Your task to perform on an android device: open app "HBO Max: Stream TV & Movies" (install if not already installed), go to login, and select forgot password Image 0: 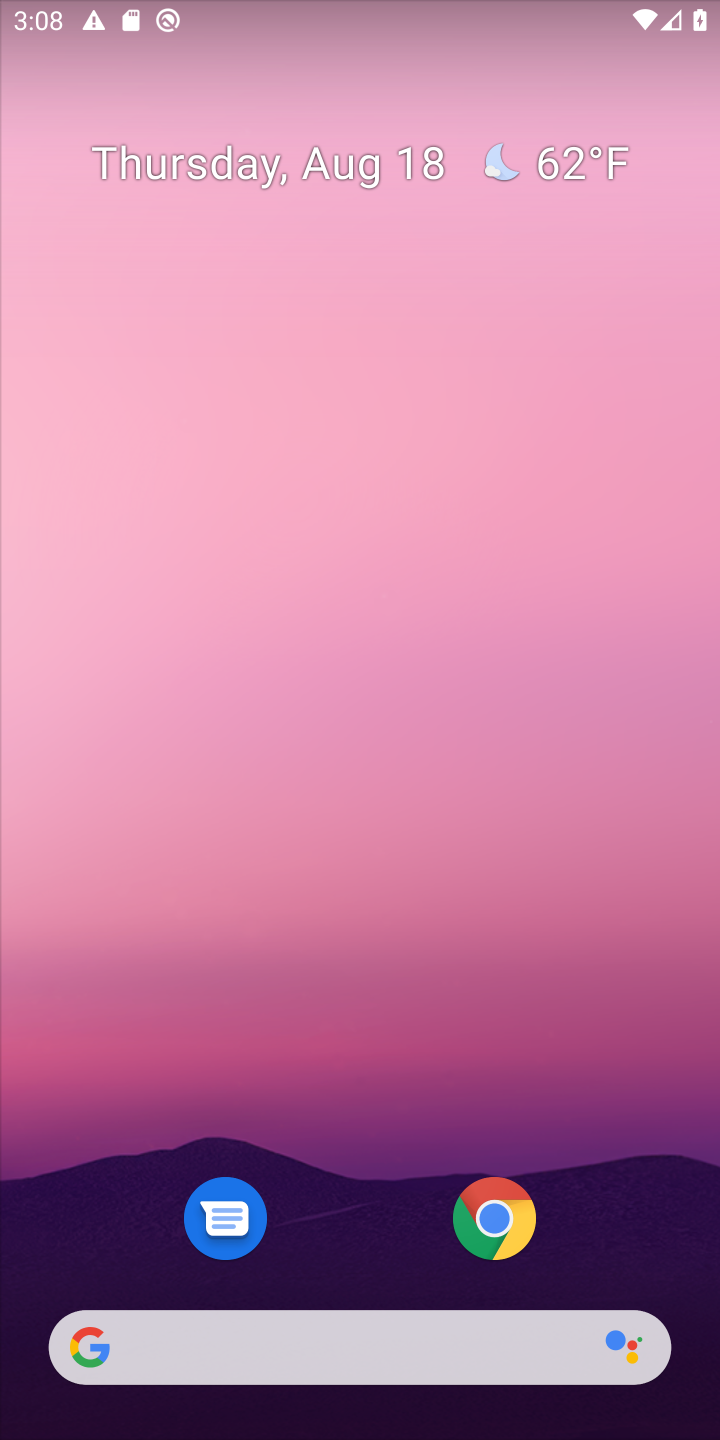
Step 0: drag from (376, 1160) to (376, 421)
Your task to perform on an android device: open app "HBO Max: Stream TV & Movies" (install if not already installed), go to login, and select forgot password Image 1: 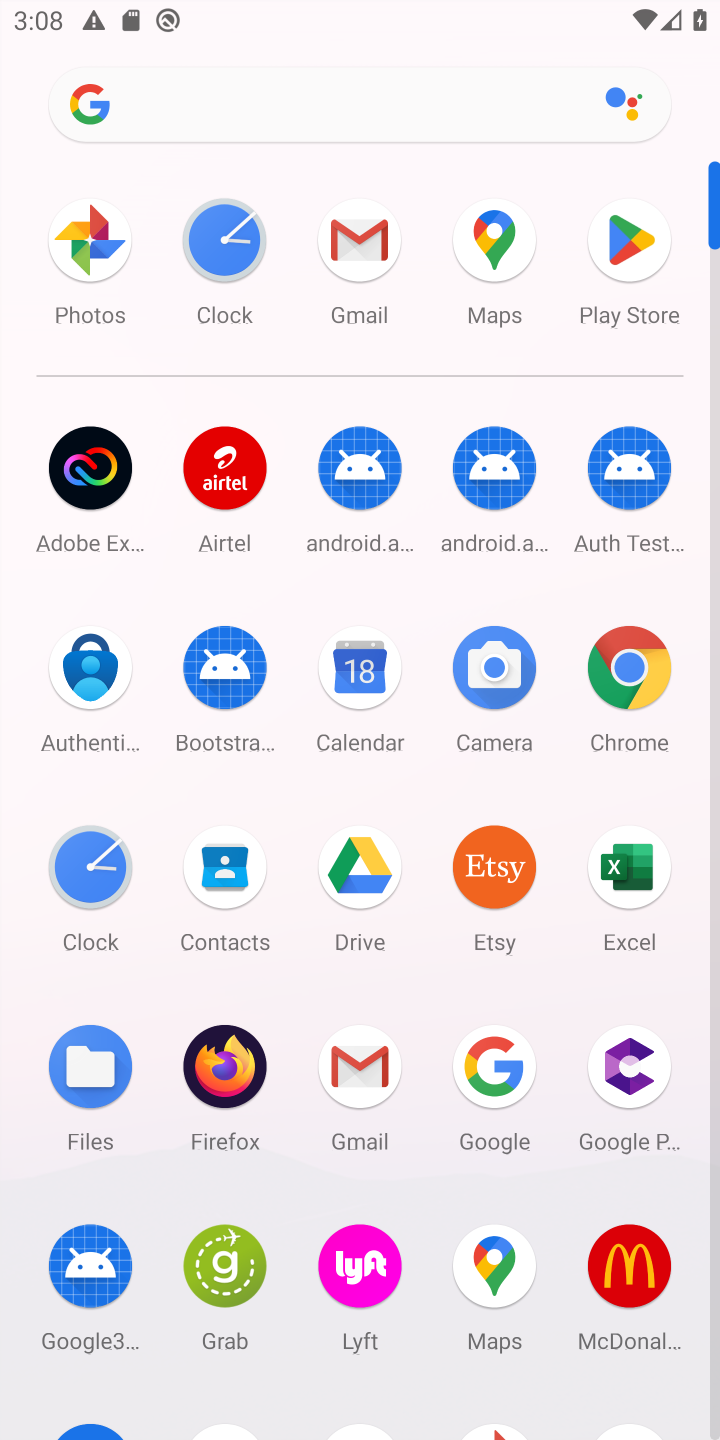
Step 1: click (632, 252)
Your task to perform on an android device: open app "HBO Max: Stream TV & Movies" (install if not already installed), go to login, and select forgot password Image 2: 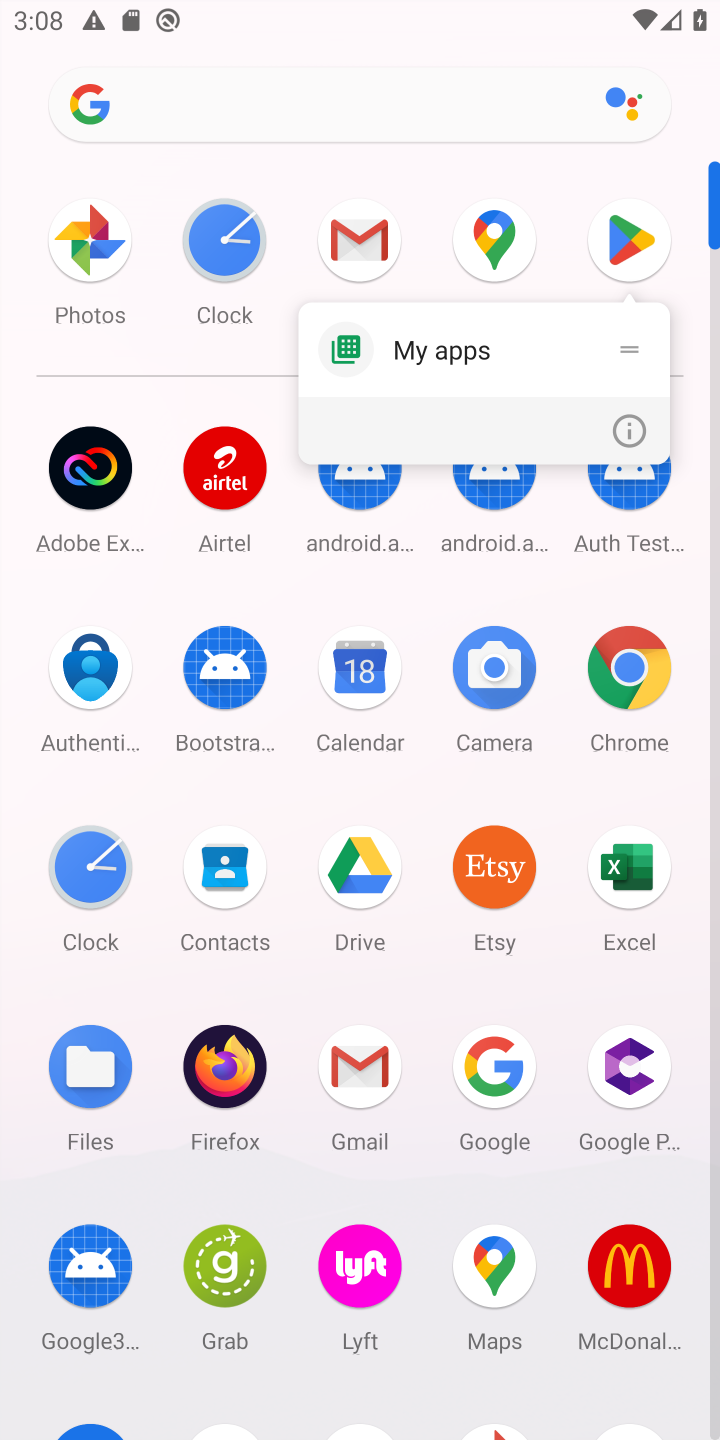
Step 2: click (624, 230)
Your task to perform on an android device: open app "HBO Max: Stream TV & Movies" (install if not already installed), go to login, and select forgot password Image 3: 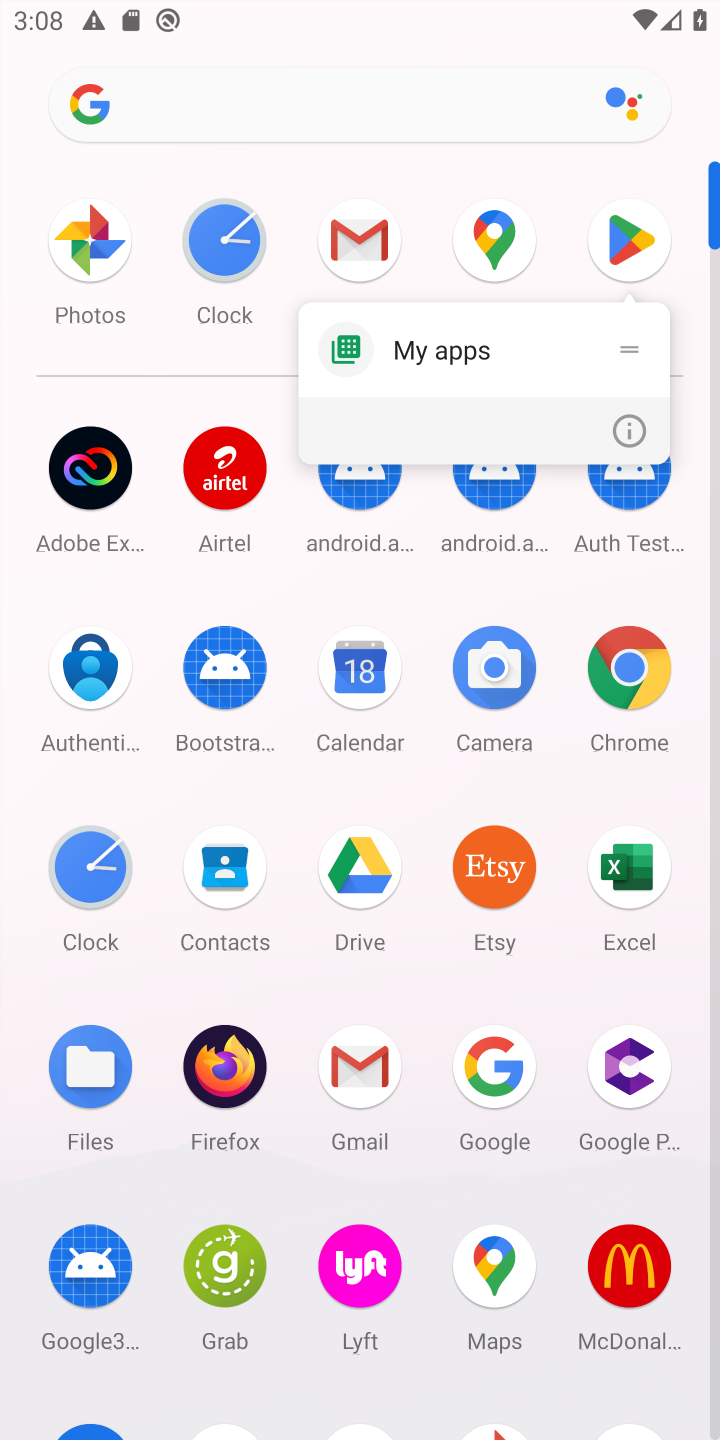
Step 3: click (624, 230)
Your task to perform on an android device: open app "HBO Max: Stream TV & Movies" (install if not already installed), go to login, and select forgot password Image 4: 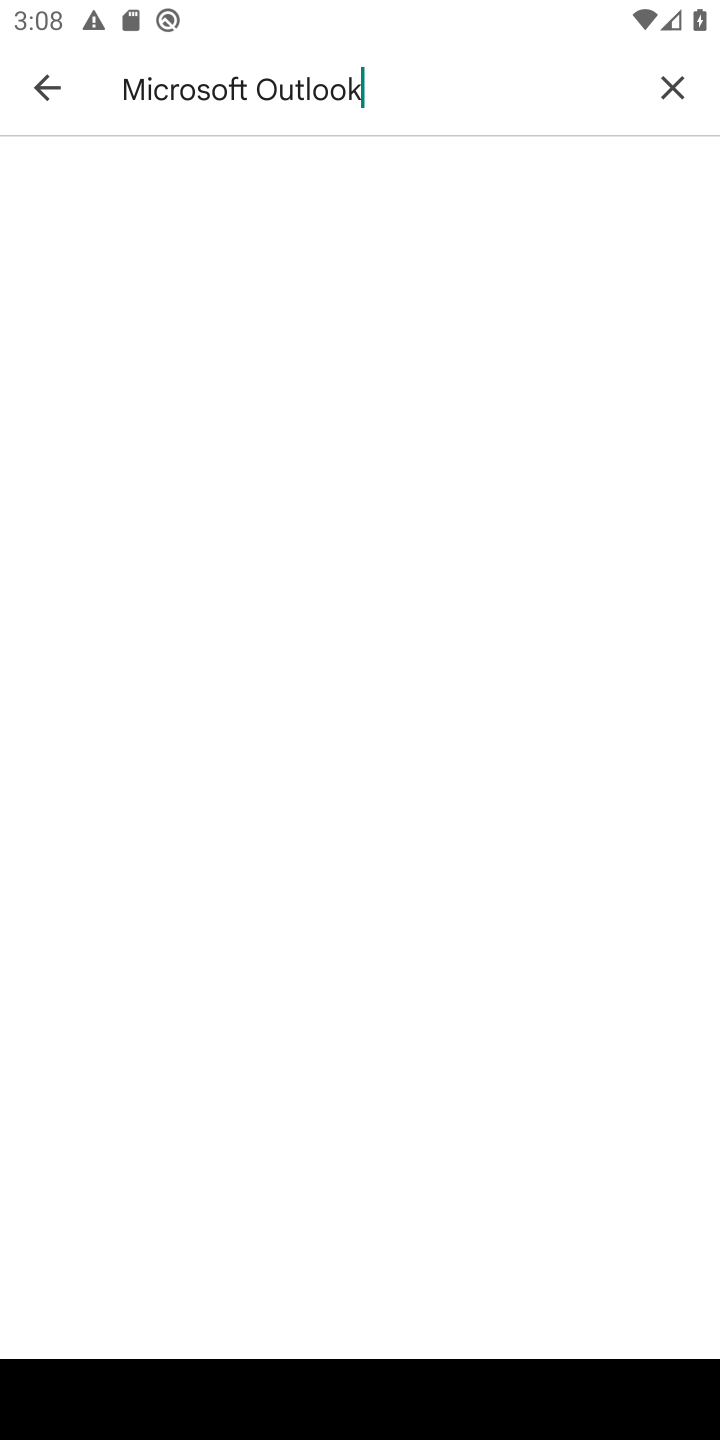
Step 4: click (664, 86)
Your task to perform on an android device: open app "HBO Max: Stream TV & Movies" (install if not already installed), go to login, and select forgot password Image 5: 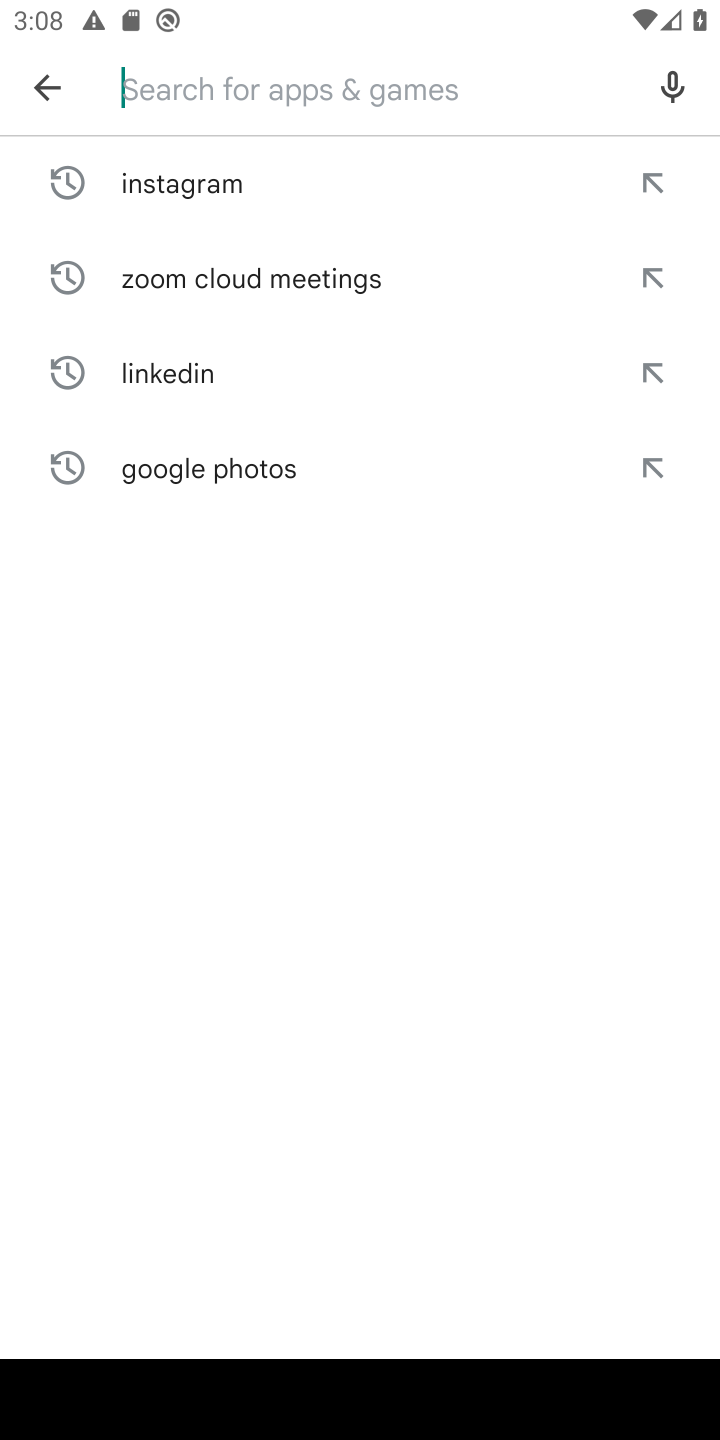
Step 5: click (277, 80)
Your task to perform on an android device: open app "HBO Max: Stream TV & Movies" (install if not already installed), go to login, and select forgot password Image 6: 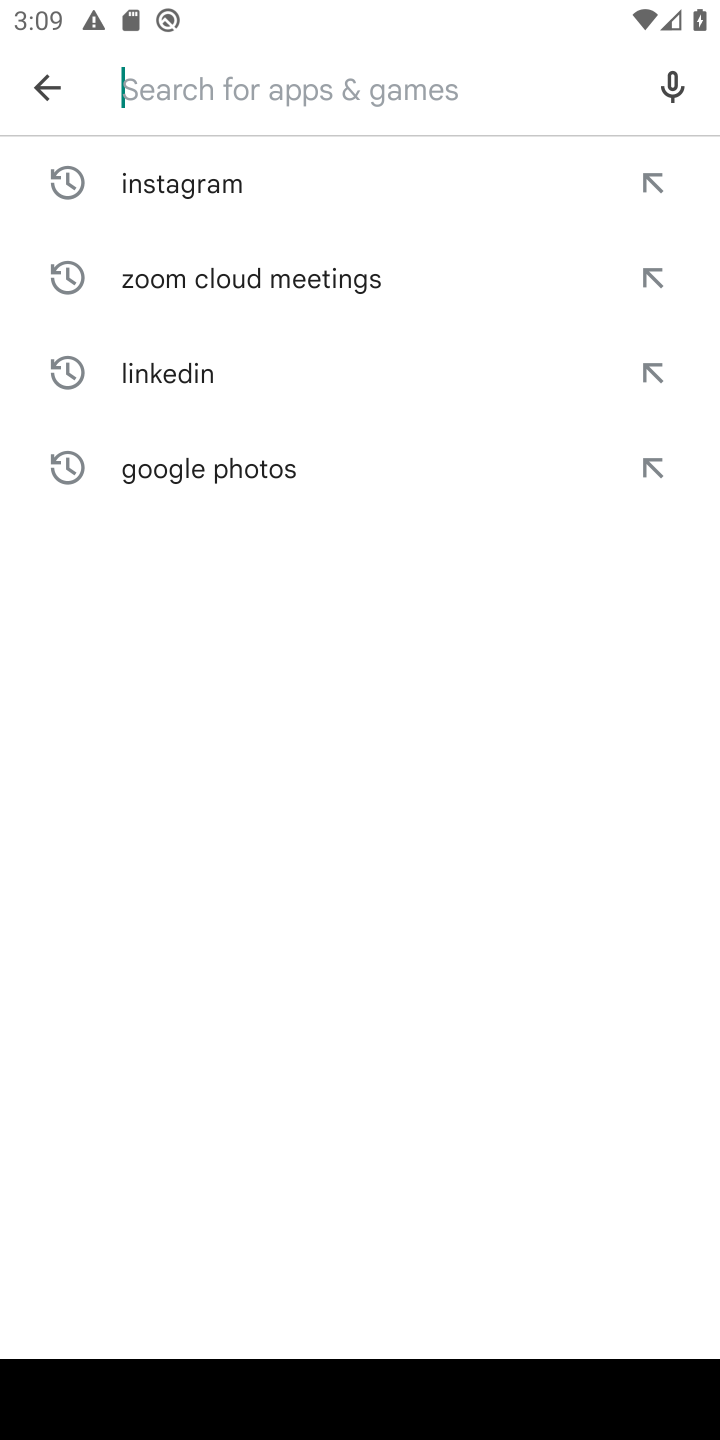
Step 6: type "HBO Max: Stream TV & Movies"
Your task to perform on an android device: open app "HBO Max: Stream TV & Movies" (install if not already installed), go to login, and select forgot password Image 7: 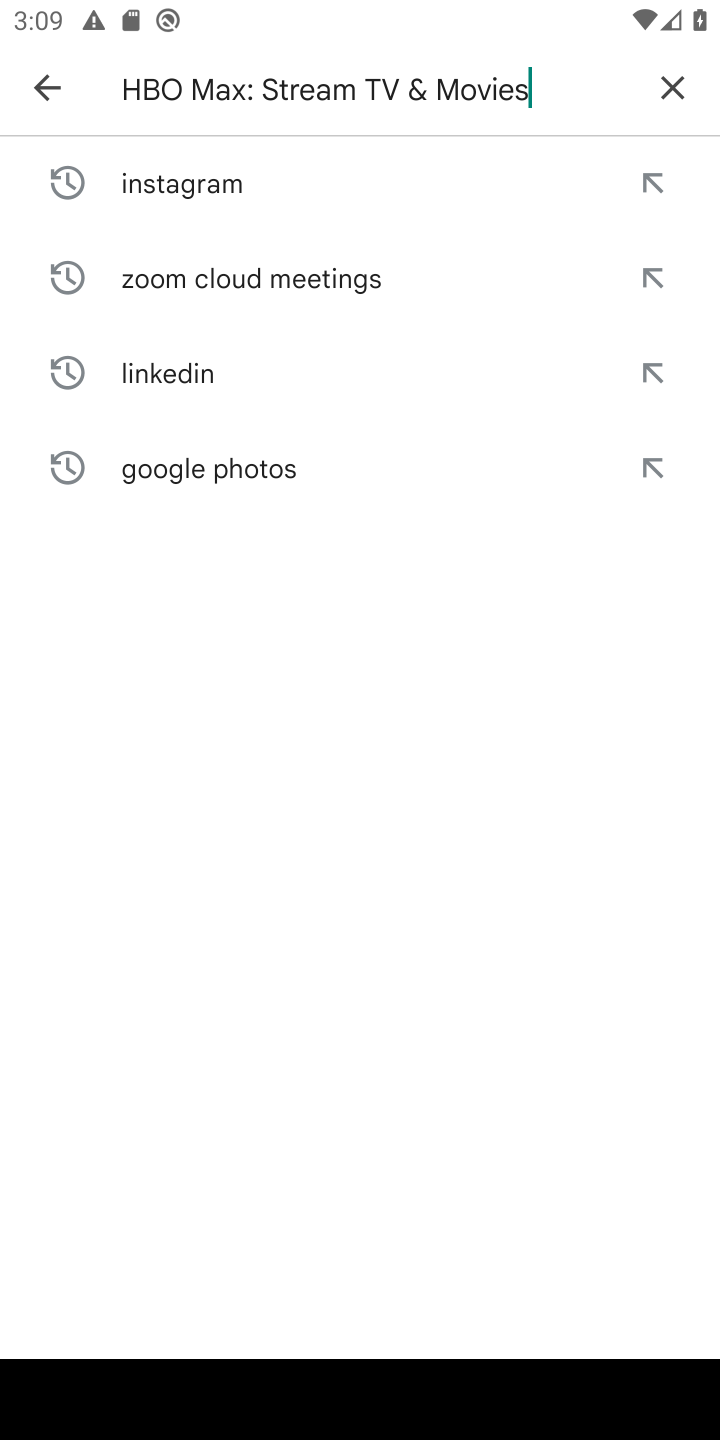
Step 7: type ""
Your task to perform on an android device: open app "HBO Max: Stream TV & Movies" (install if not already installed), go to login, and select forgot password Image 8: 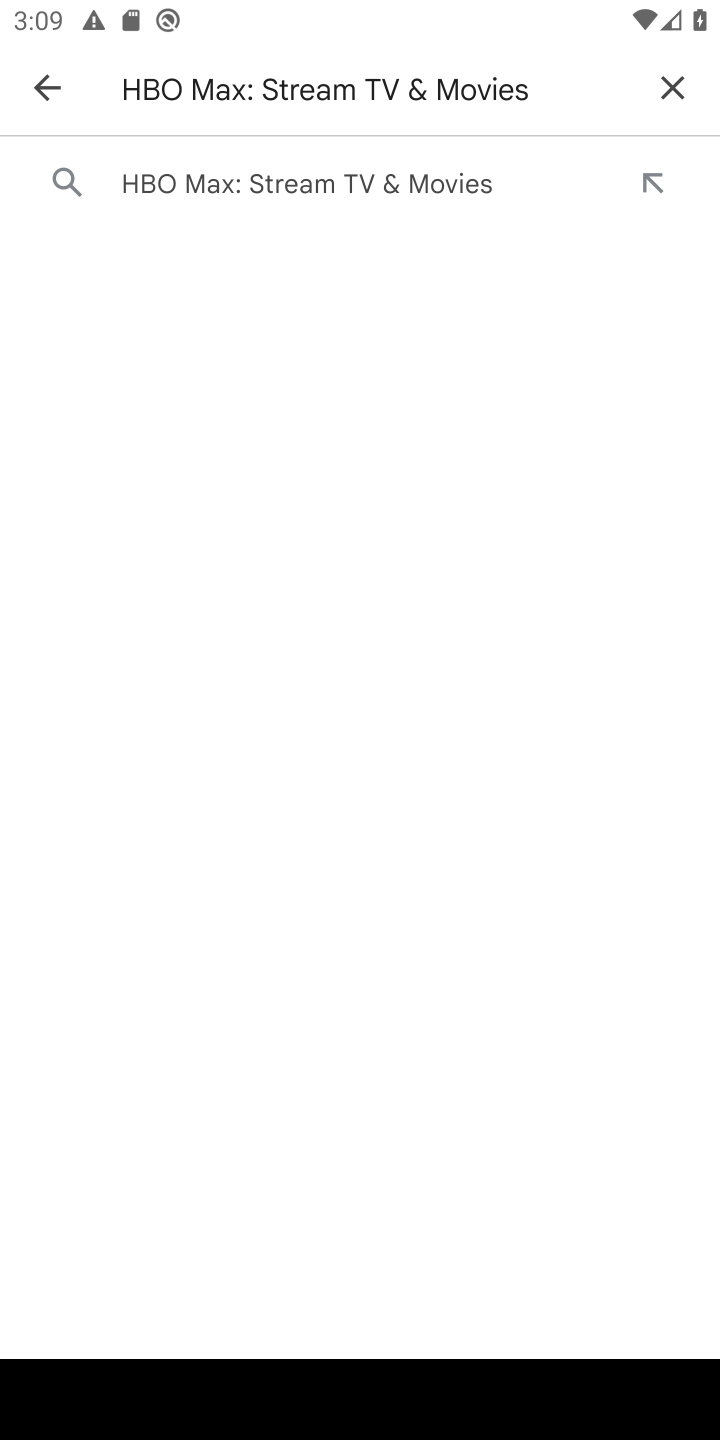
Step 8: click (256, 172)
Your task to perform on an android device: open app "HBO Max: Stream TV & Movies" (install if not already installed), go to login, and select forgot password Image 9: 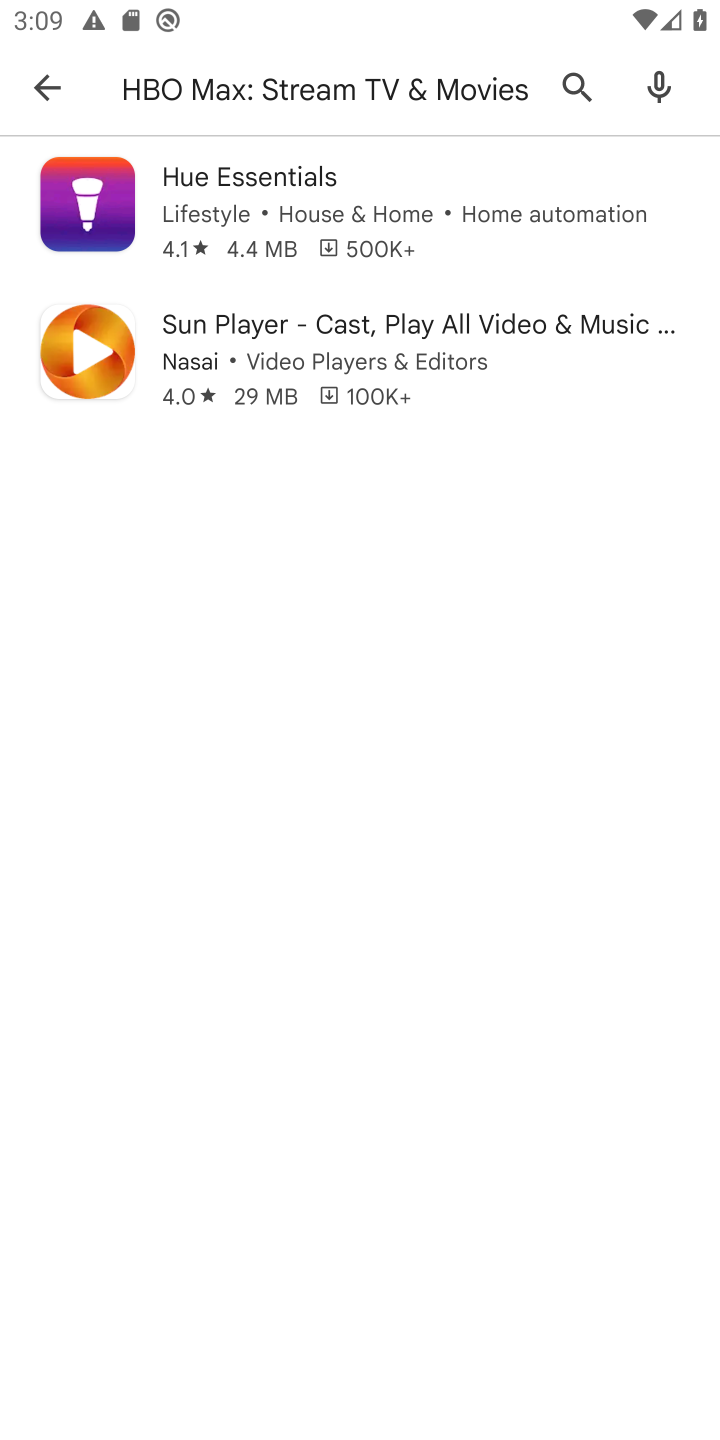
Step 9: press back button
Your task to perform on an android device: open app "HBO Max: Stream TV & Movies" (install if not already installed), go to login, and select forgot password Image 10: 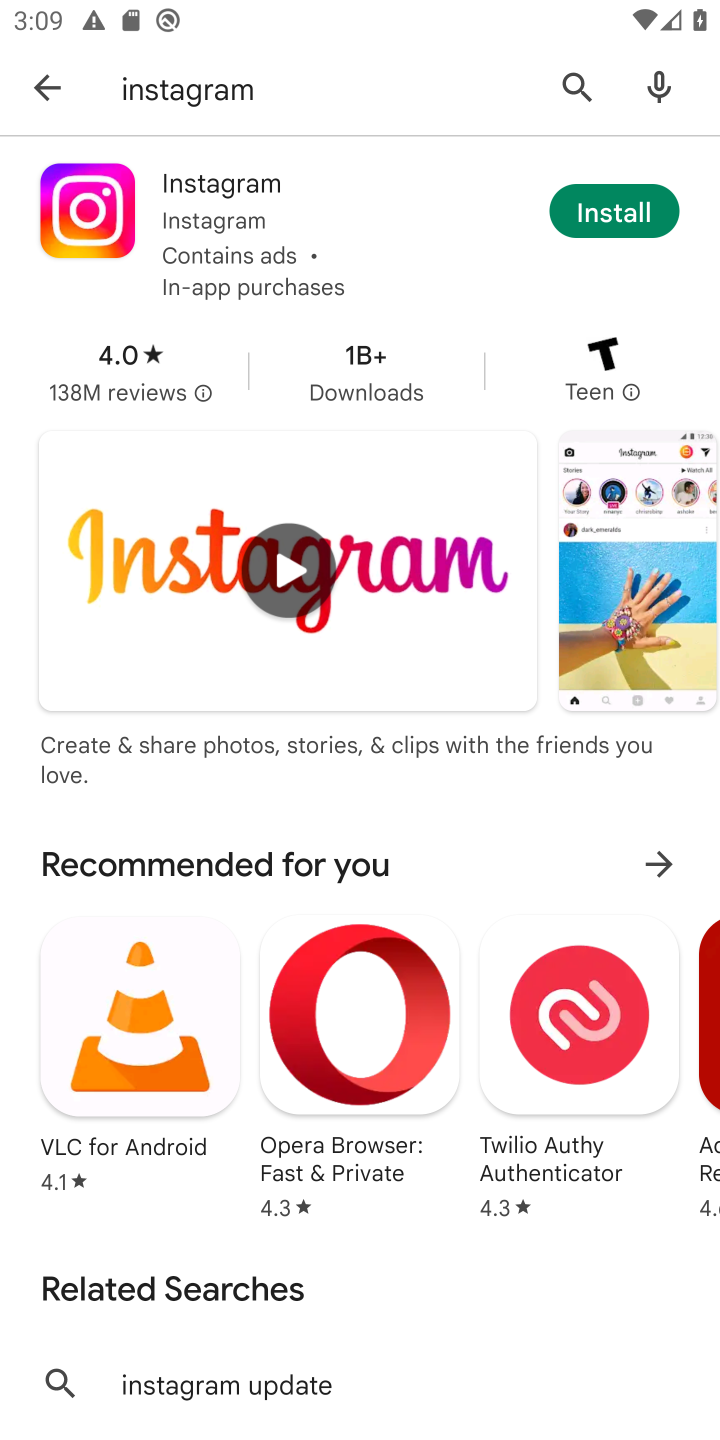
Step 10: click (560, 72)
Your task to perform on an android device: open app "HBO Max: Stream TV & Movies" (install if not already installed), go to login, and select forgot password Image 11: 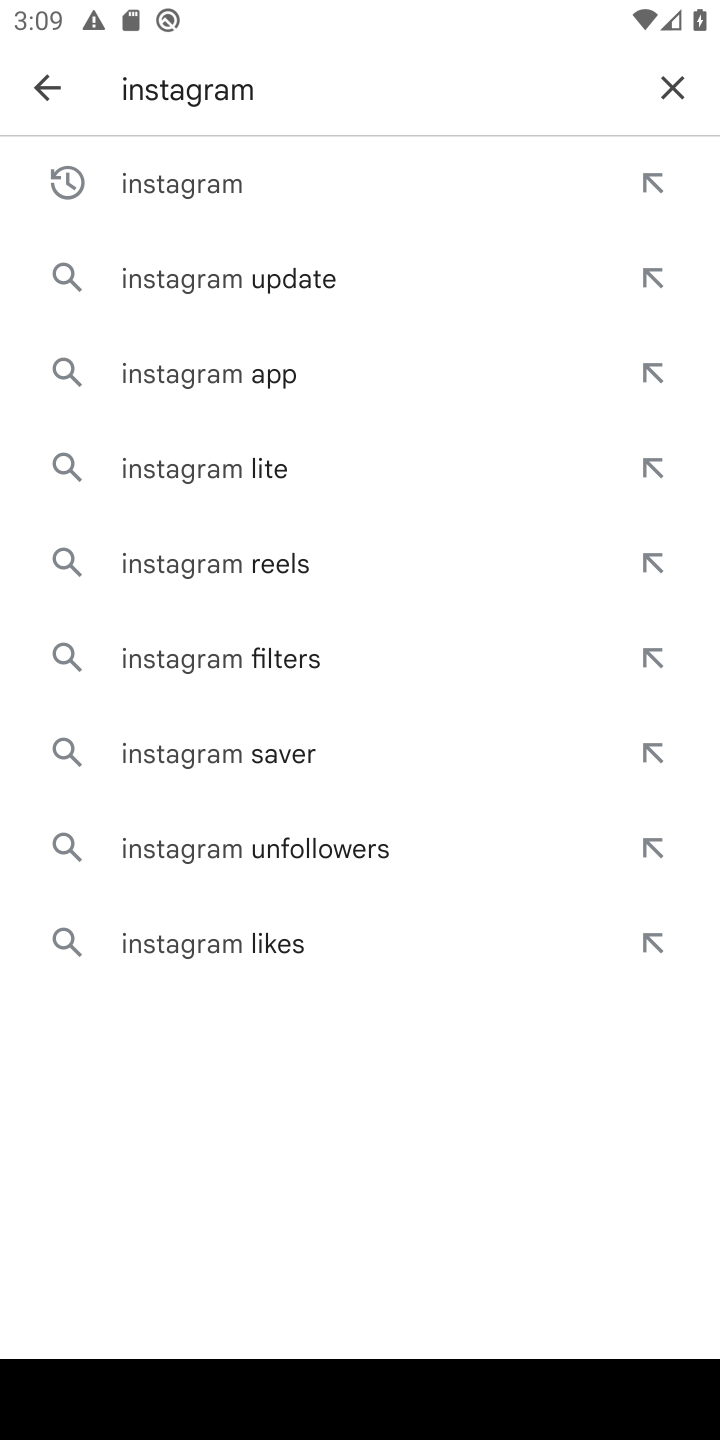
Step 11: click (680, 88)
Your task to perform on an android device: open app "HBO Max: Stream TV & Movies" (install if not already installed), go to login, and select forgot password Image 12: 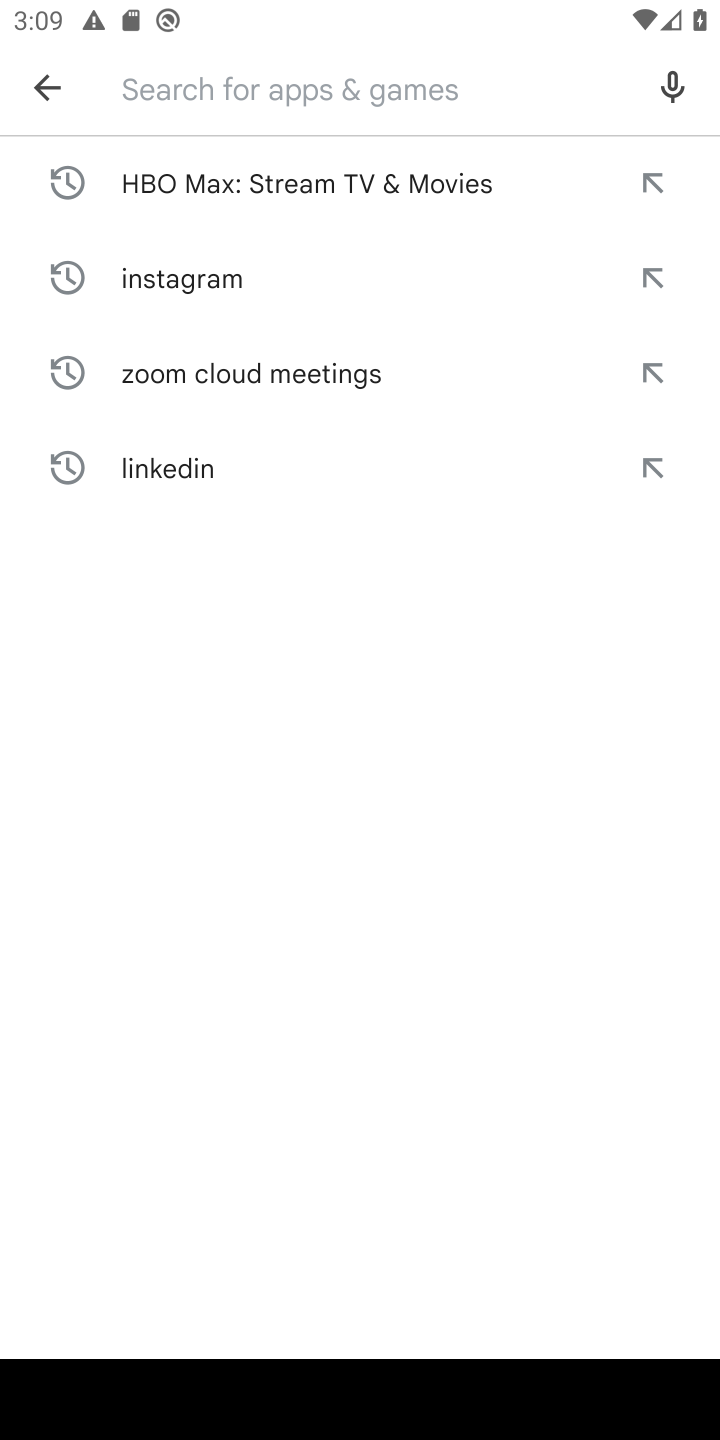
Step 12: type "HBO Max: Stream TV & Movies"
Your task to perform on an android device: open app "HBO Max: Stream TV & Movies" (install if not already installed), go to login, and select forgot password Image 13: 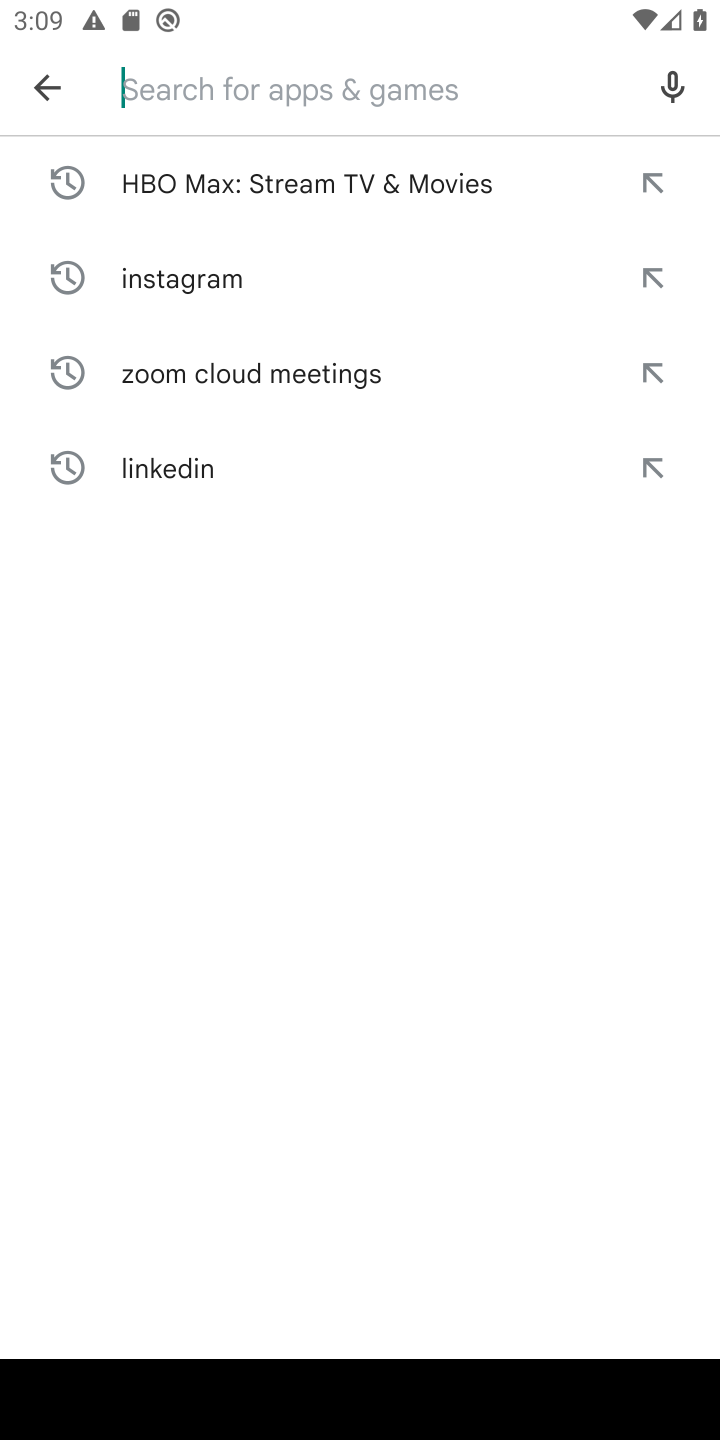
Step 13: click (444, 196)
Your task to perform on an android device: open app "HBO Max: Stream TV & Movies" (install if not already installed), go to login, and select forgot password Image 14: 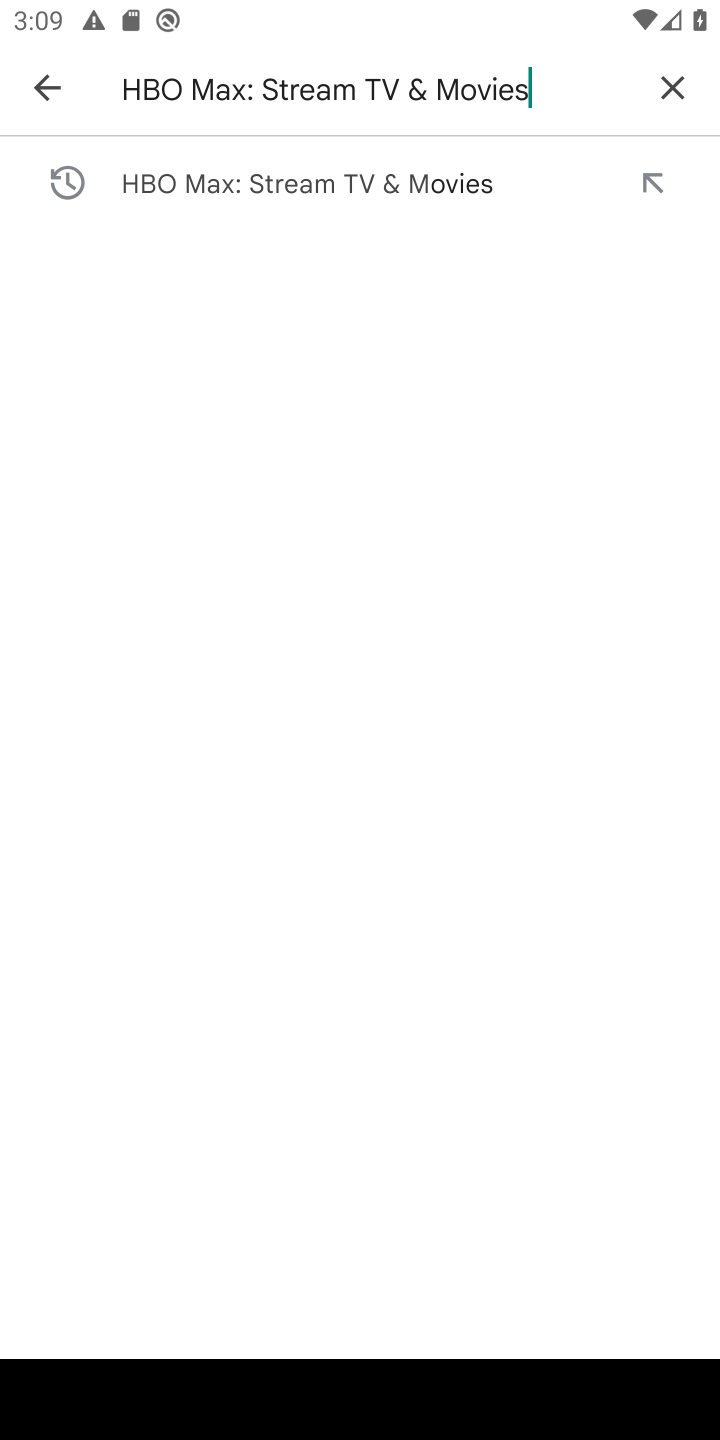
Step 14: type ""
Your task to perform on an android device: open app "HBO Max: Stream TV & Movies" (install if not already installed), go to login, and select forgot password Image 15: 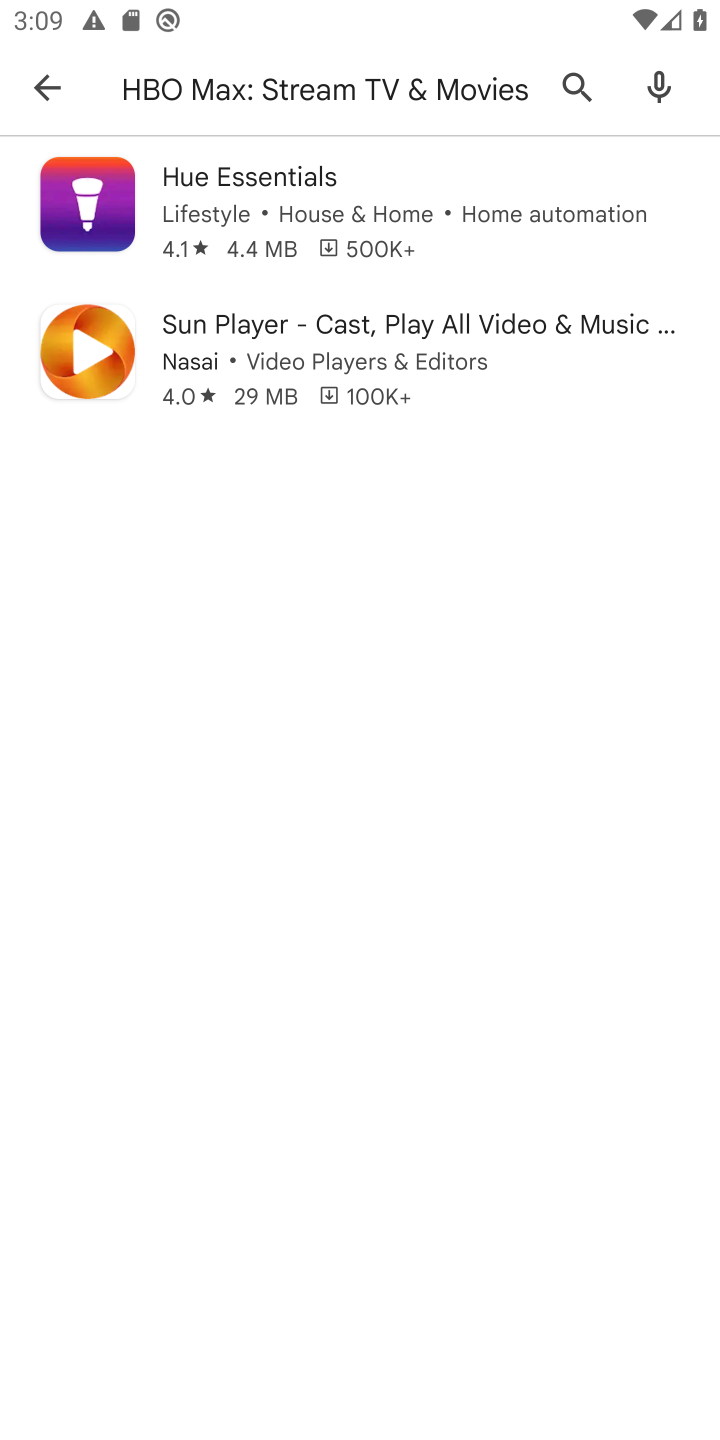
Step 15: task complete